Your task to perform on an android device: manage bookmarks in the chrome app Image 0: 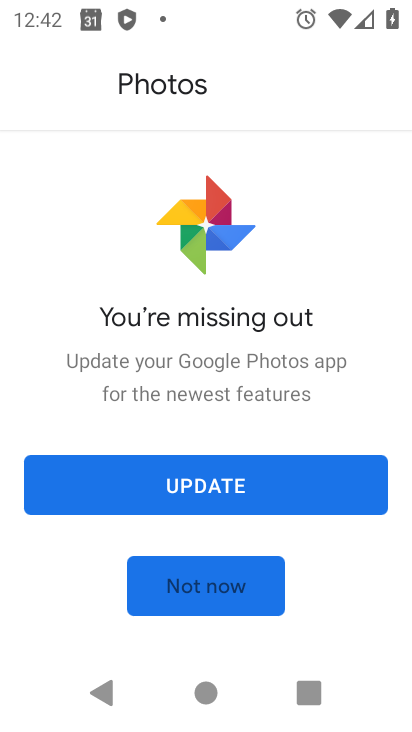
Step 0: press home button
Your task to perform on an android device: manage bookmarks in the chrome app Image 1: 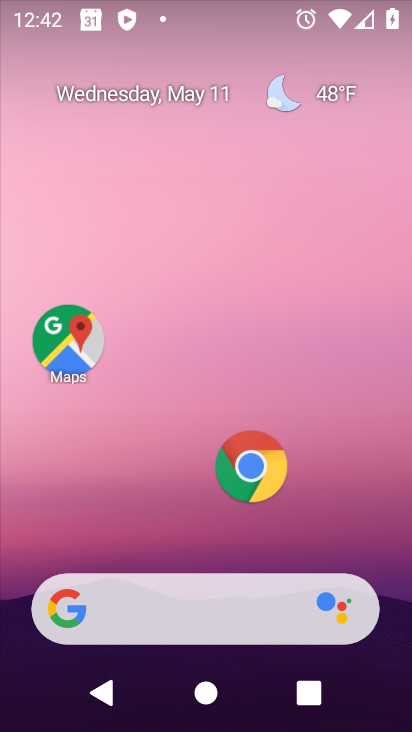
Step 1: click (249, 457)
Your task to perform on an android device: manage bookmarks in the chrome app Image 2: 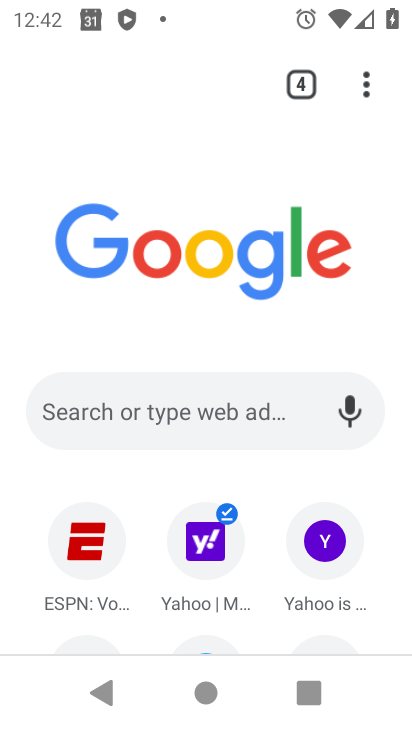
Step 2: drag from (371, 73) to (141, 319)
Your task to perform on an android device: manage bookmarks in the chrome app Image 3: 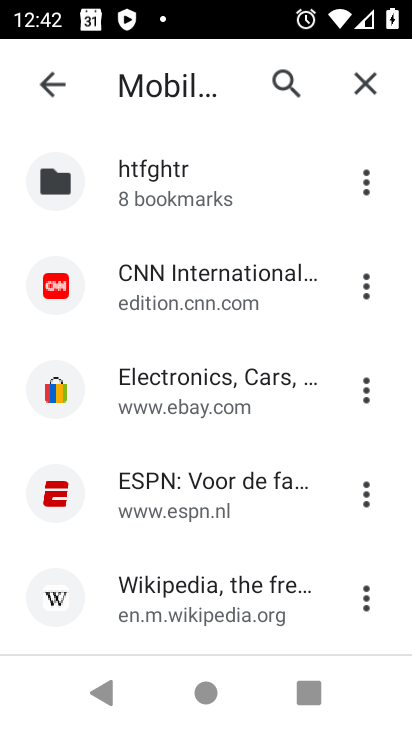
Step 3: click (363, 280)
Your task to perform on an android device: manage bookmarks in the chrome app Image 4: 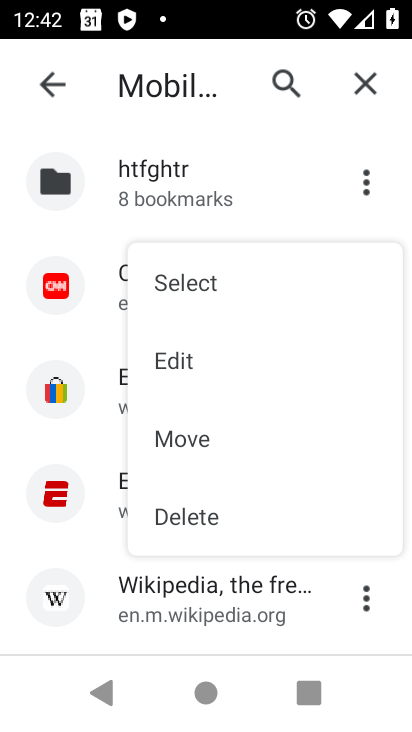
Step 4: click (175, 519)
Your task to perform on an android device: manage bookmarks in the chrome app Image 5: 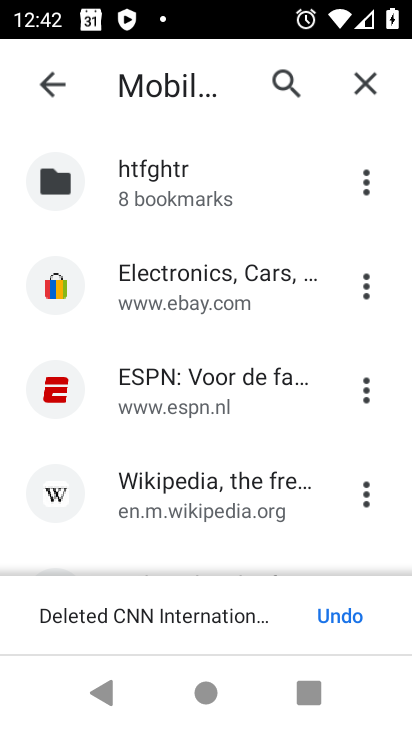
Step 5: task complete